Your task to perform on an android device: Show me the alarms in the clock app Image 0: 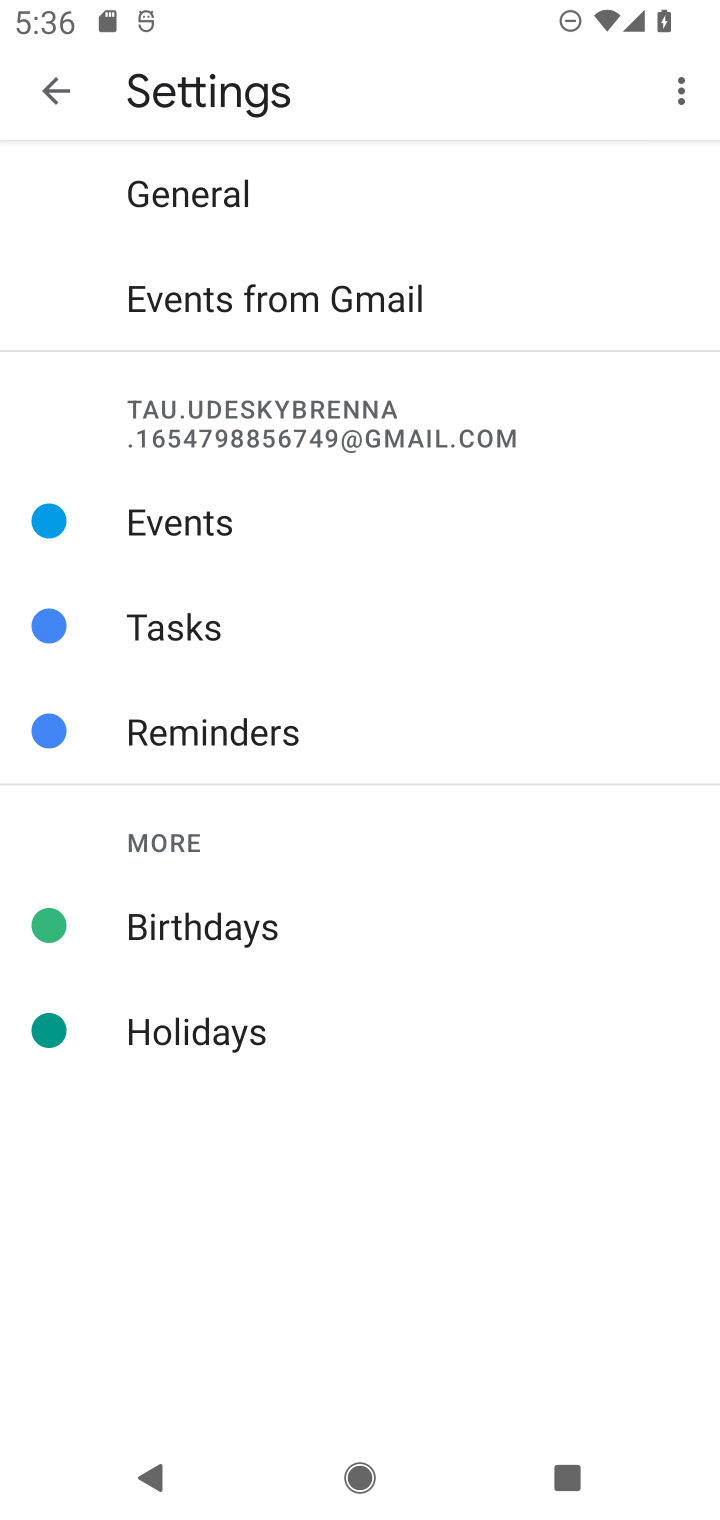
Step 0: press home button
Your task to perform on an android device: Show me the alarms in the clock app Image 1: 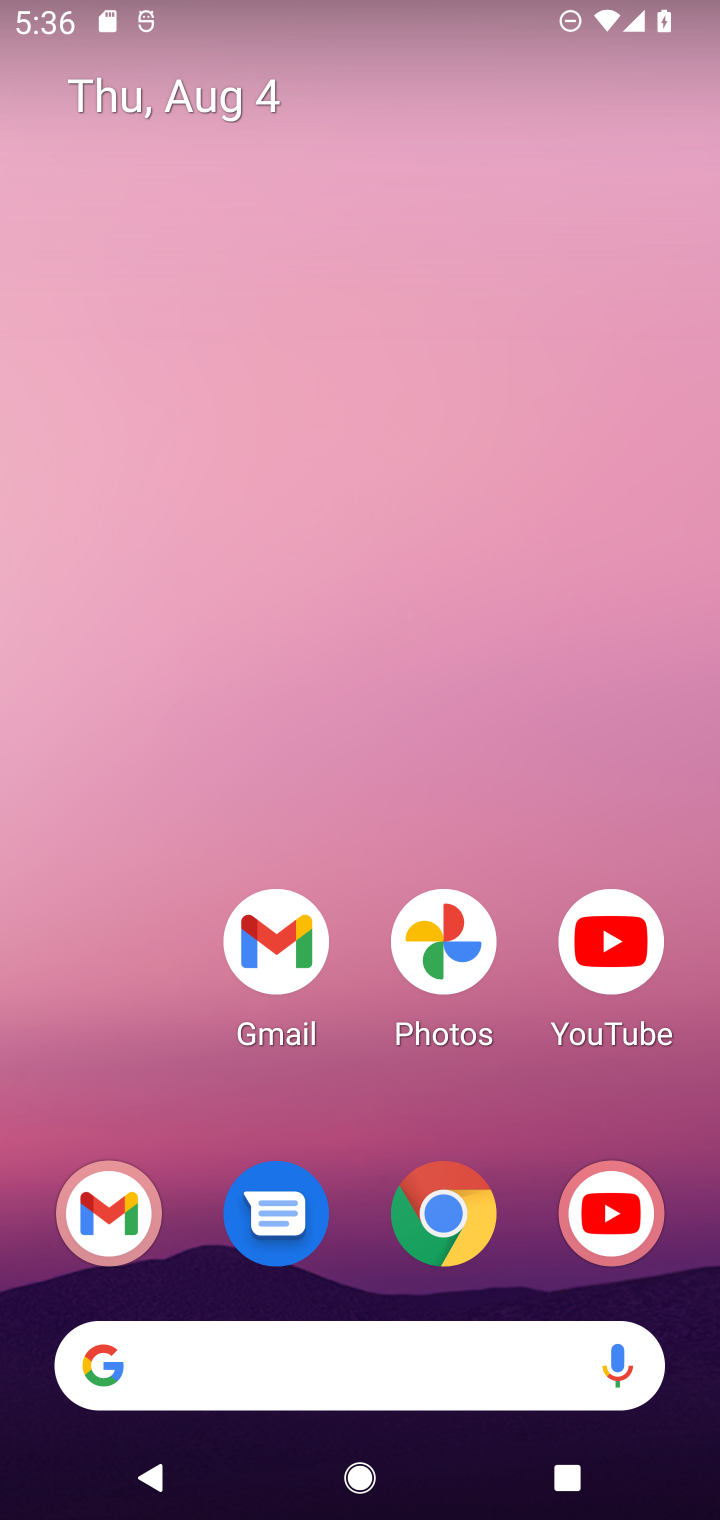
Step 1: drag from (110, 1105) to (123, 411)
Your task to perform on an android device: Show me the alarms in the clock app Image 2: 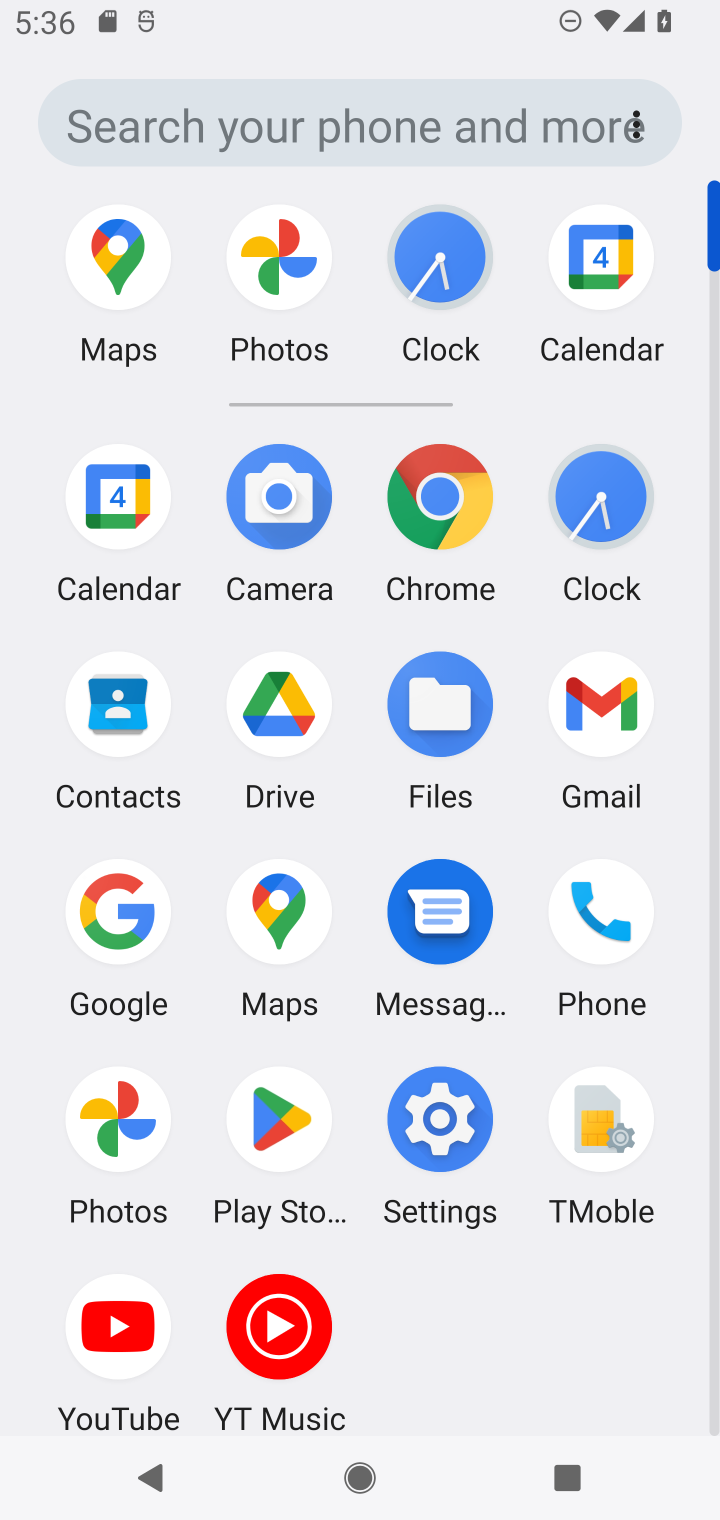
Step 2: click (605, 513)
Your task to perform on an android device: Show me the alarms in the clock app Image 3: 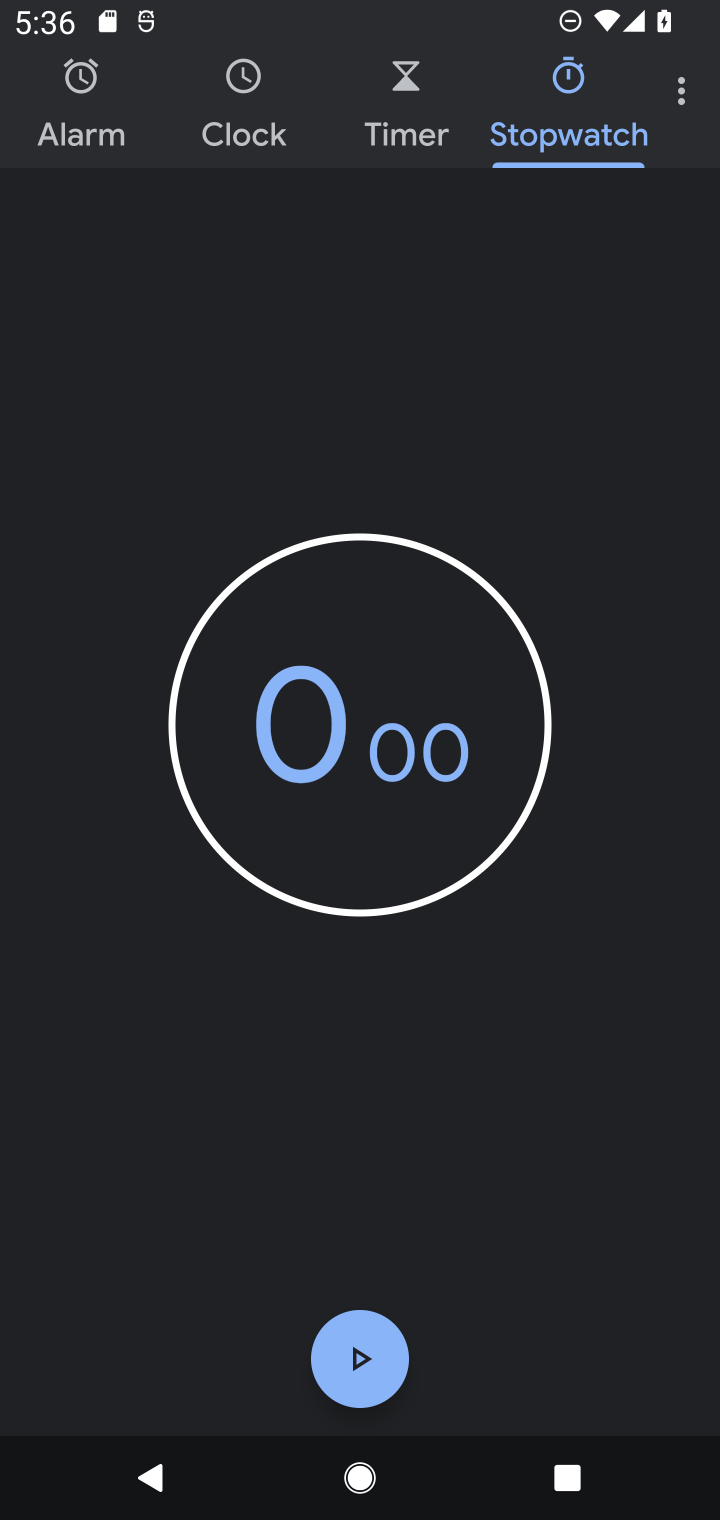
Step 3: click (77, 92)
Your task to perform on an android device: Show me the alarms in the clock app Image 4: 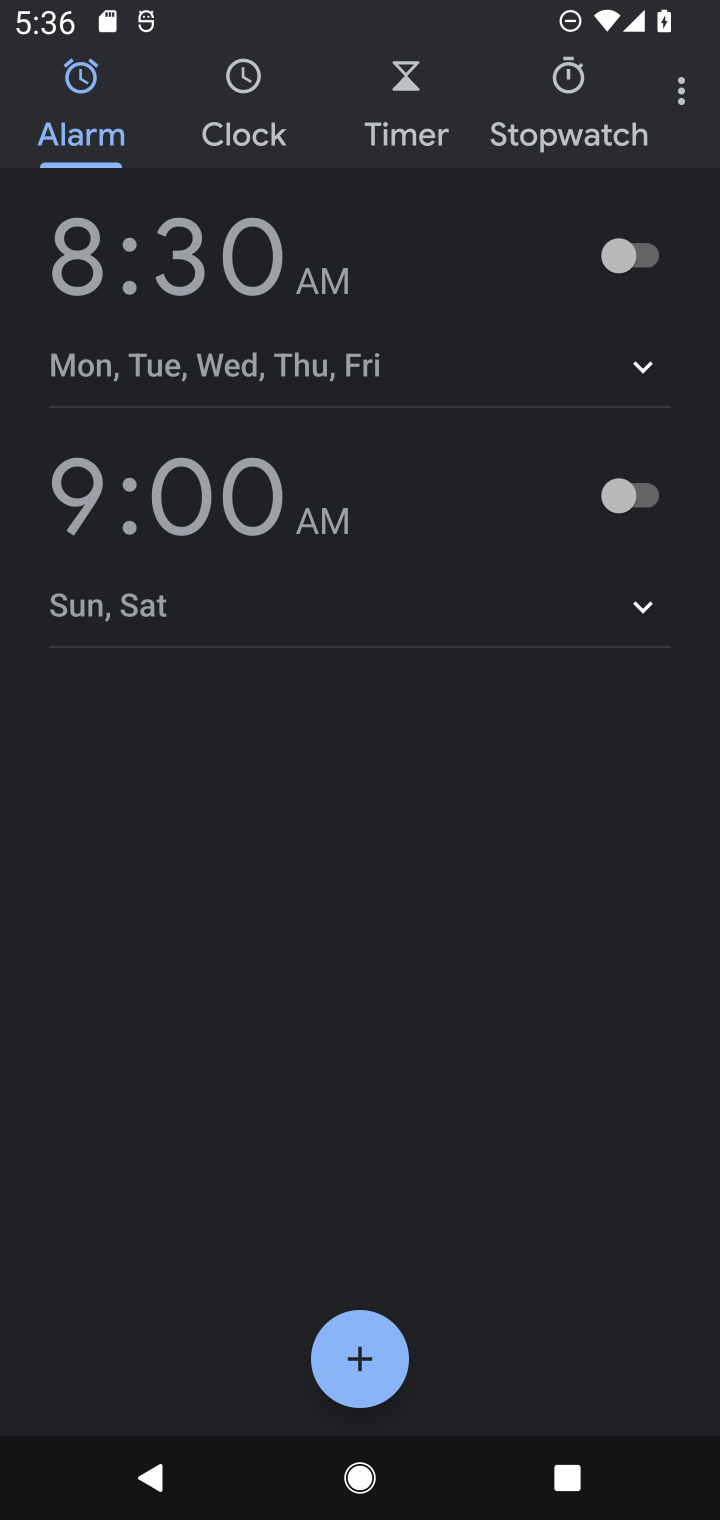
Step 4: task complete